Your task to perform on an android device: turn off picture-in-picture Image 0: 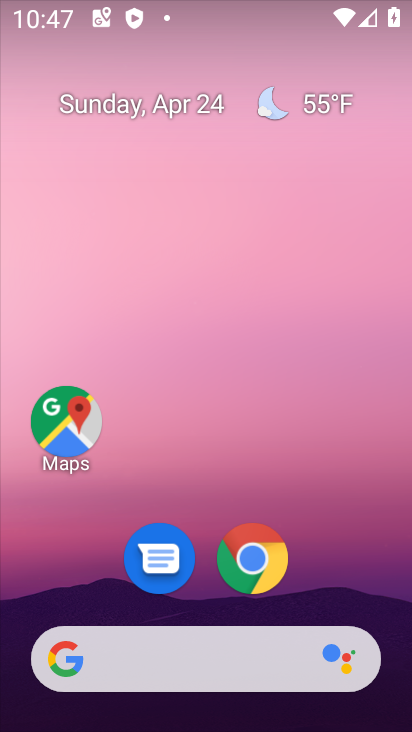
Step 0: click (260, 556)
Your task to perform on an android device: turn off picture-in-picture Image 1: 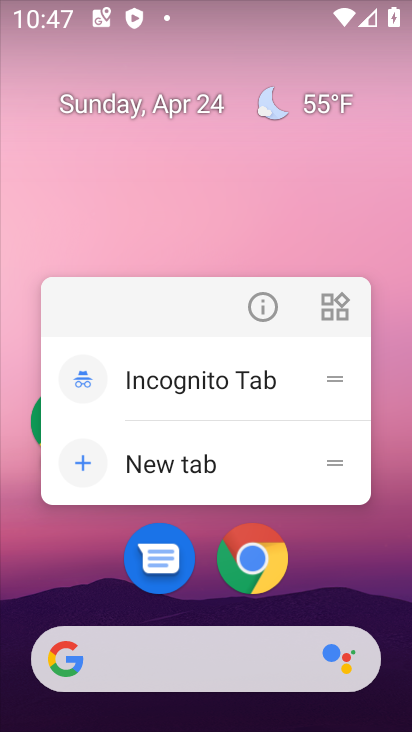
Step 1: click (260, 556)
Your task to perform on an android device: turn off picture-in-picture Image 2: 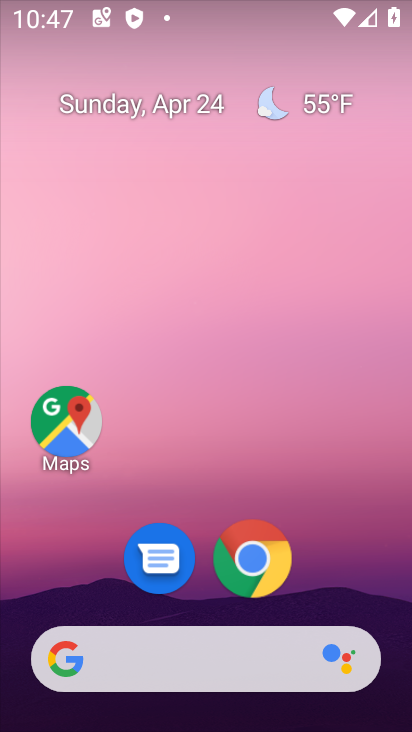
Step 2: click (261, 557)
Your task to perform on an android device: turn off picture-in-picture Image 3: 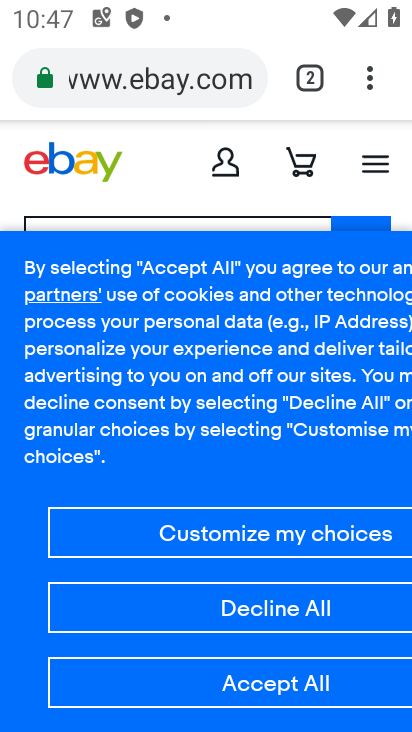
Step 3: click (263, 557)
Your task to perform on an android device: turn off picture-in-picture Image 4: 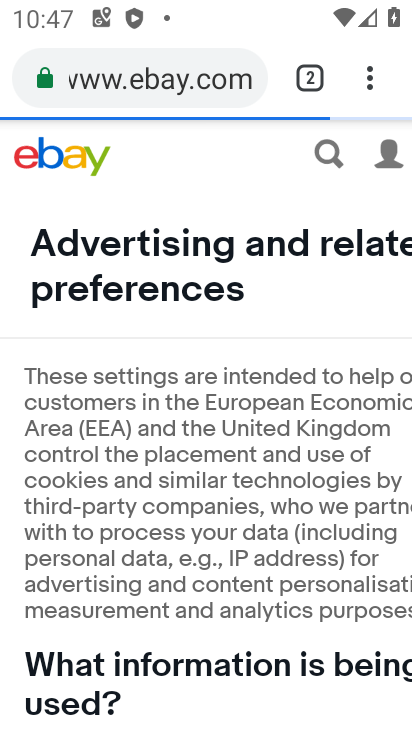
Step 4: press home button
Your task to perform on an android device: turn off picture-in-picture Image 5: 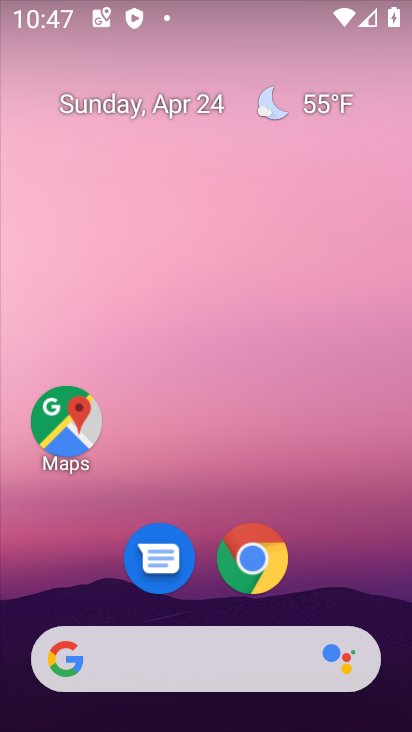
Step 5: drag from (249, 556) to (267, 303)
Your task to perform on an android device: turn off picture-in-picture Image 6: 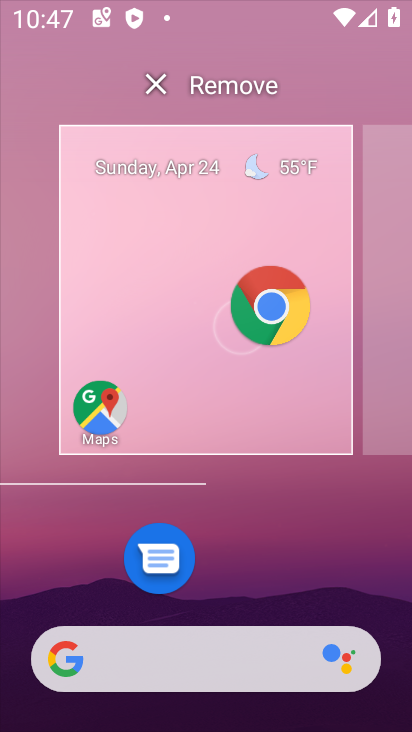
Step 6: click (265, 302)
Your task to perform on an android device: turn off picture-in-picture Image 7: 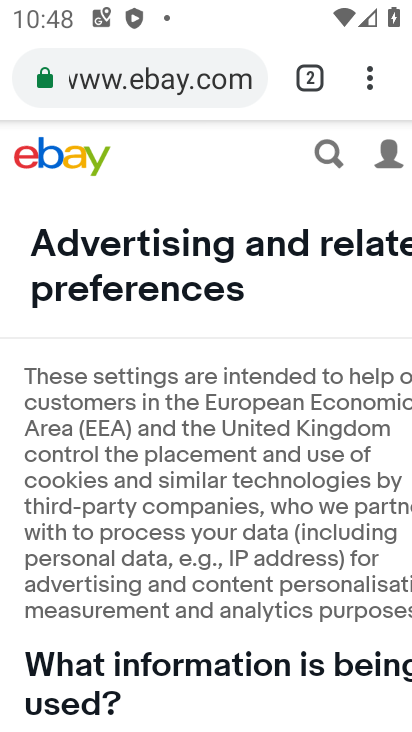
Step 7: press home button
Your task to perform on an android device: turn off picture-in-picture Image 8: 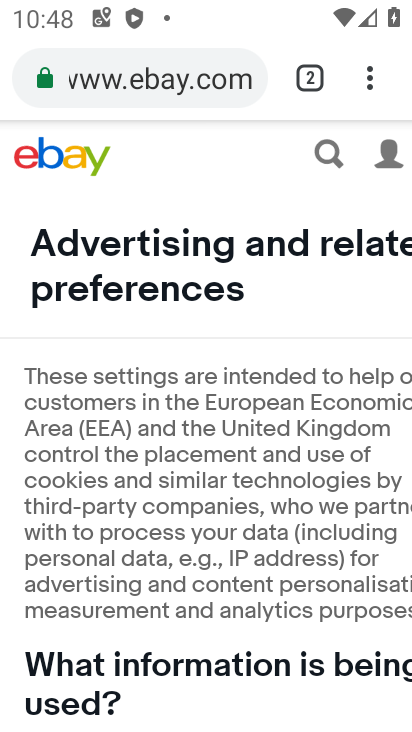
Step 8: press home button
Your task to perform on an android device: turn off picture-in-picture Image 9: 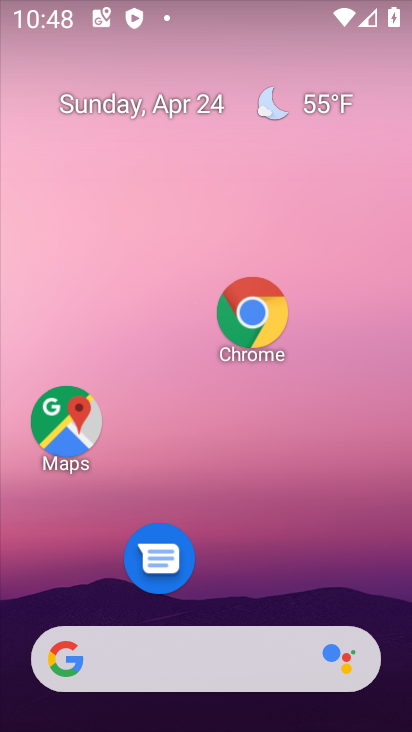
Step 9: drag from (250, 262) to (167, 15)
Your task to perform on an android device: turn off picture-in-picture Image 10: 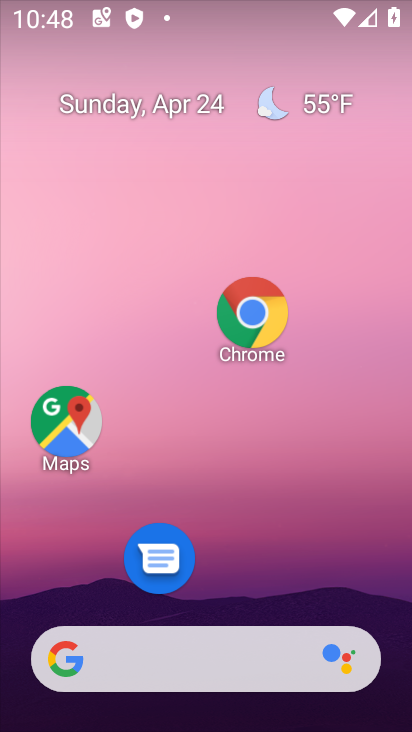
Step 10: drag from (359, 564) to (193, 62)
Your task to perform on an android device: turn off picture-in-picture Image 11: 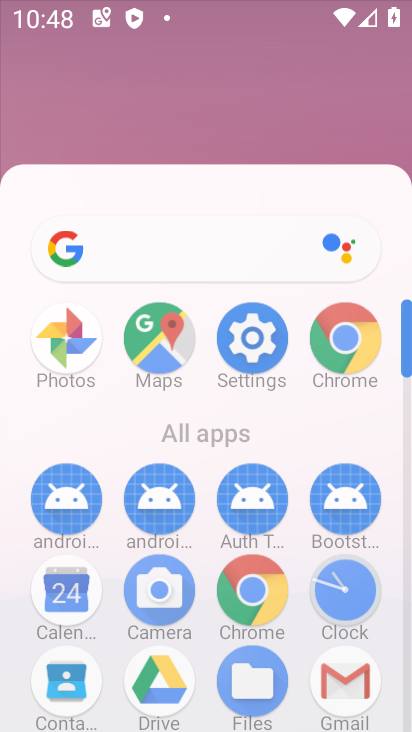
Step 11: drag from (315, 540) to (113, 74)
Your task to perform on an android device: turn off picture-in-picture Image 12: 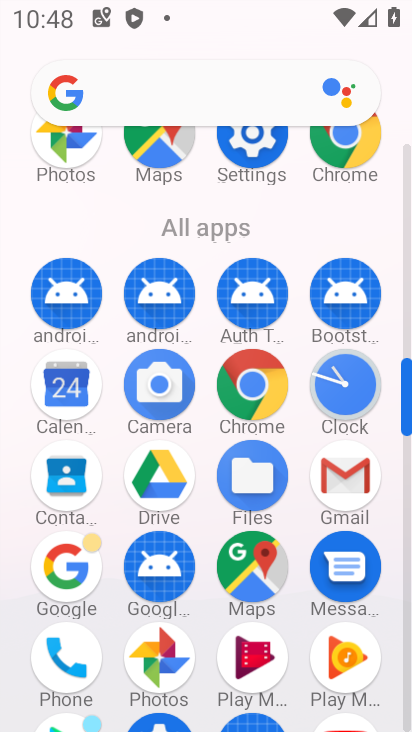
Step 12: drag from (306, 499) to (270, 203)
Your task to perform on an android device: turn off picture-in-picture Image 13: 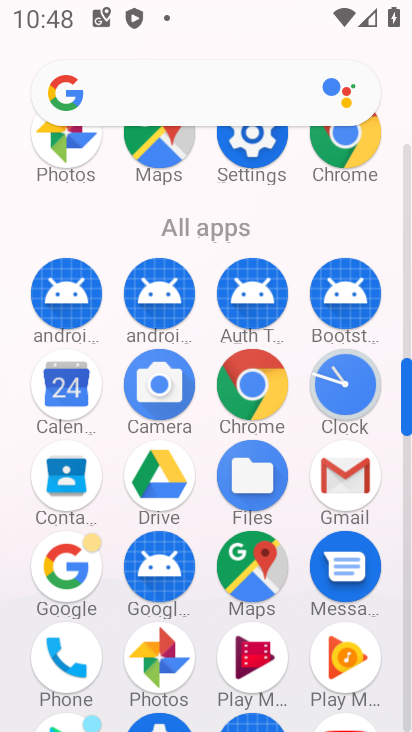
Step 13: click (349, 143)
Your task to perform on an android device: turn off picture-in-picture Image 14: 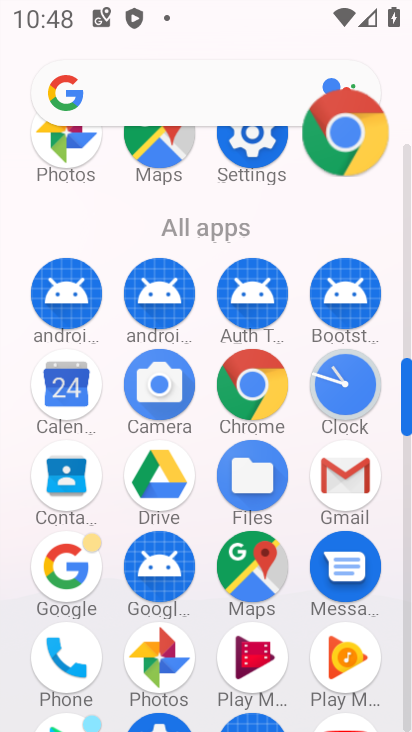
Step 14: click (349, 143)
Your task to perform on an android device: turn off picture-in-picture Image 15: 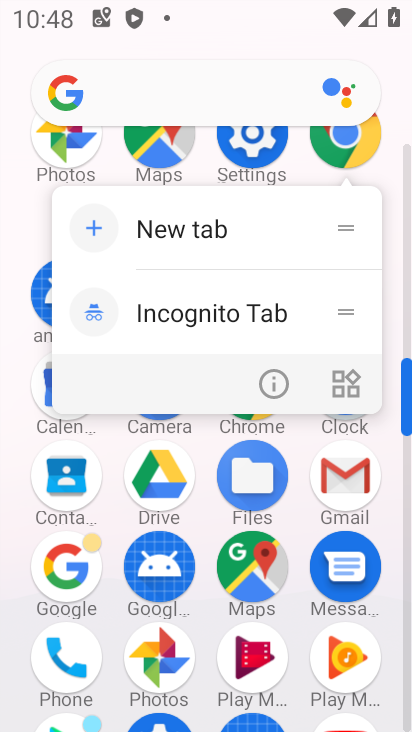
Step 15: drag from (269, 373) to (295, 404)
Your task to perform on an android device: turn off picture-in-picture Image 16: 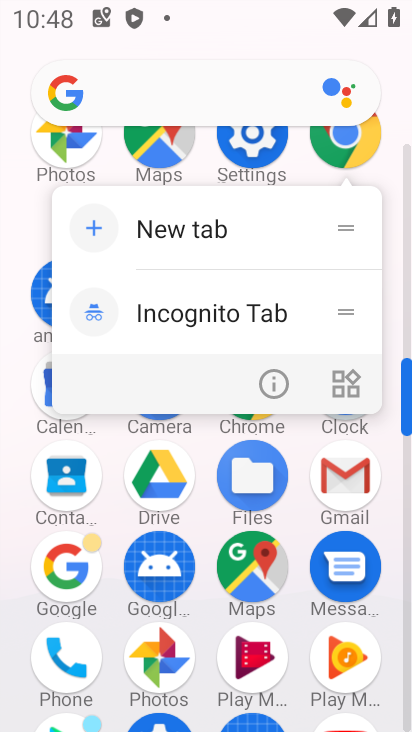
Step 16: click (274, 383)
Your task to perform on an android device: turn off picture-in-picture Image 17: 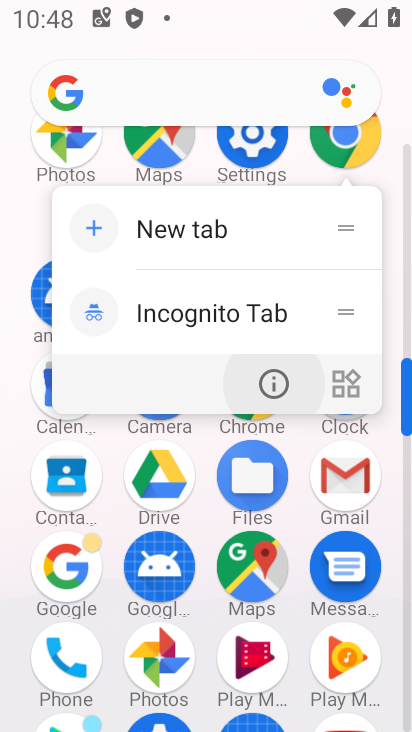
Step 17: click (275, 383)
Your task to perform on an android device: turn off picture-in-picture Image 18: 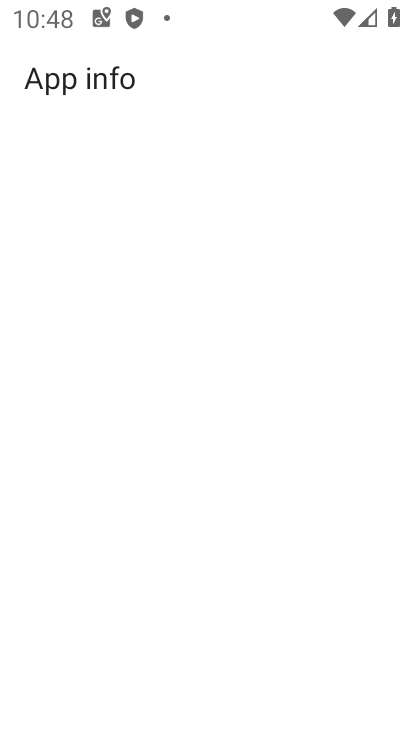
Step 18: click (278, 384)
Your task to perform on an android device: turn off picture-in-picture Image 19: 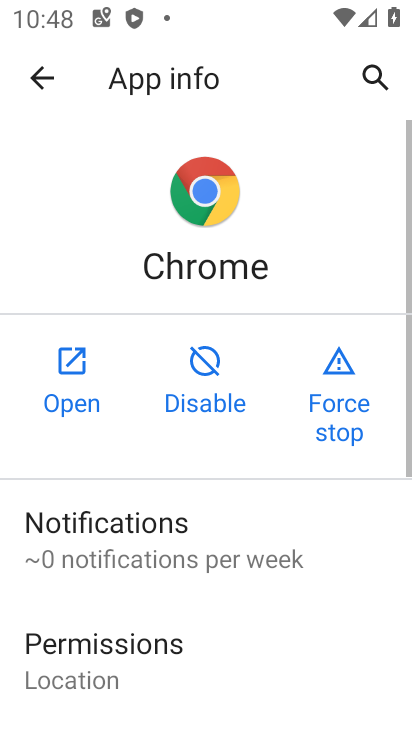
Step 19: drag from (223, 549) to (268, 147)
Your task to perform on an android device: turn off picture-in-picture Image 20: 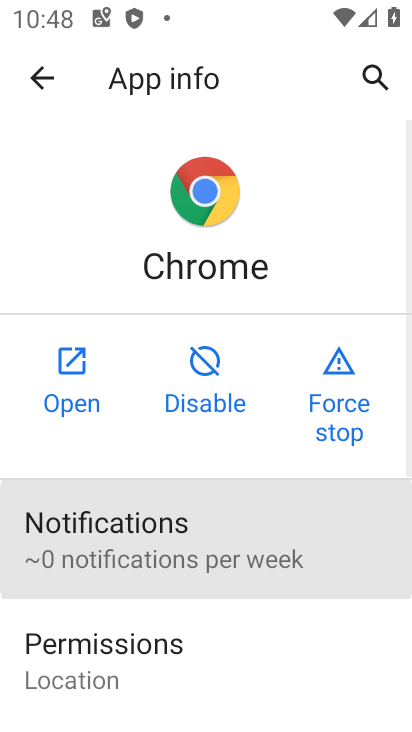
Step 20: drag from (199, 379) to (188, 77)
Your task to perform on an android device: turn off picture-in-picture Image 21: 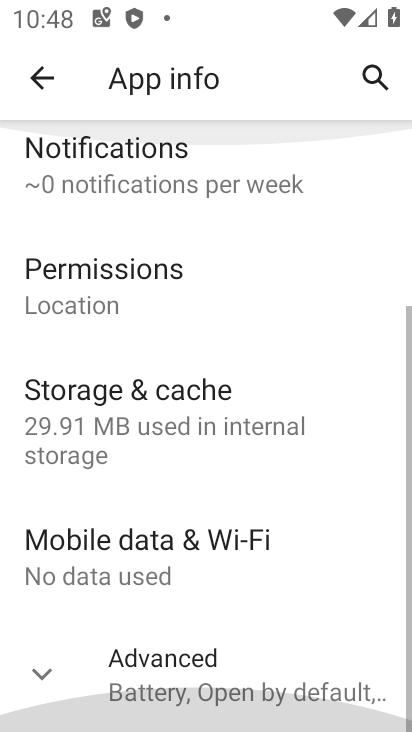
Step 21: drag from (135, 578) to (170, 207)
Your task to perform on an android device: turn off picture-in-picture Image 22: 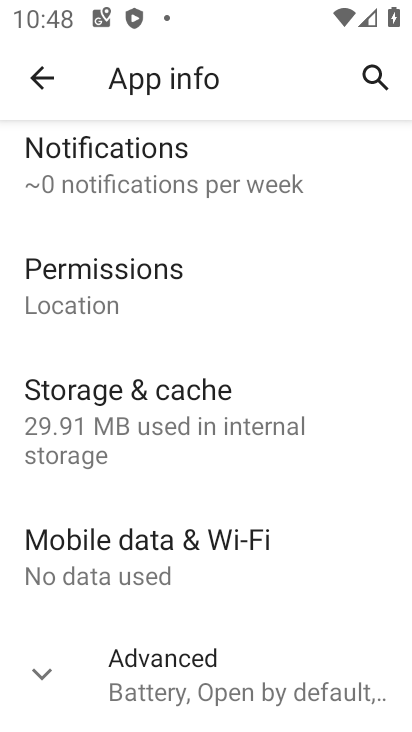
Step 22: click (184, 668)
Your task to perform on an android device: turn off picture-in-picture Image 23: 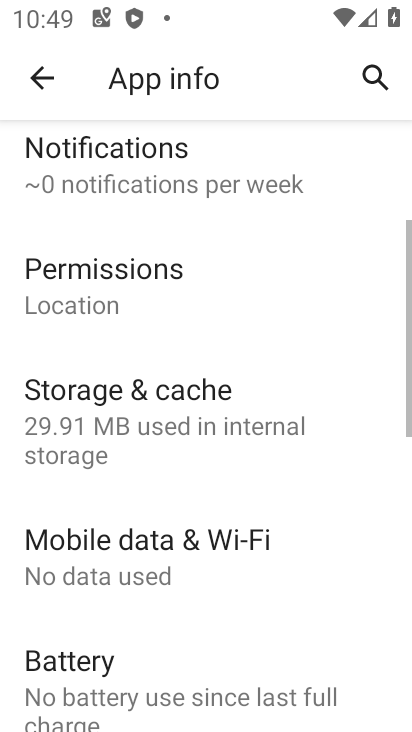
Step 23: drag from (184, 668) to (184, 181)
Your task to perform on an android device: turn off picture-in-picture Image 24: 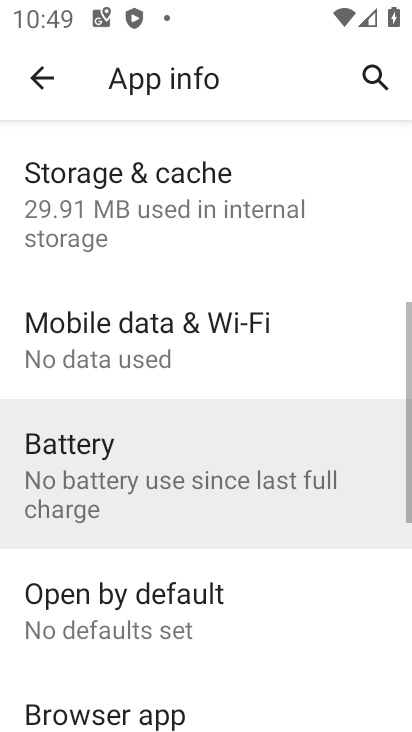
Step 24: drag from (174, 499) to (116, 70)
Your task to perform on an android device: turn off picture-in-picture Image 25: 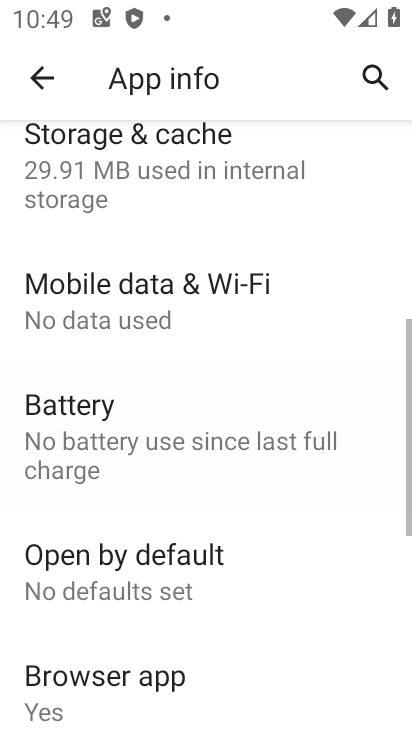
Step 25: drag from (173, 383) to (160, 75)
Your task to perform on an android device: turn off picture-in-picture Image 26: 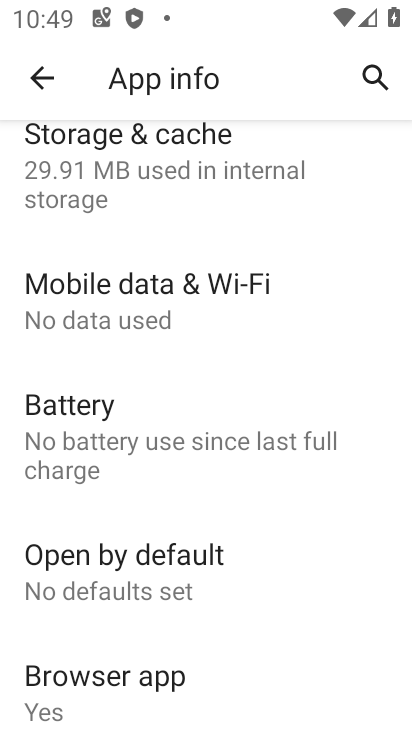
Step 26: drag from (165, 553) to (143, 169)
Your task to perform on an android device: turn off picture-in-picture Image 27: 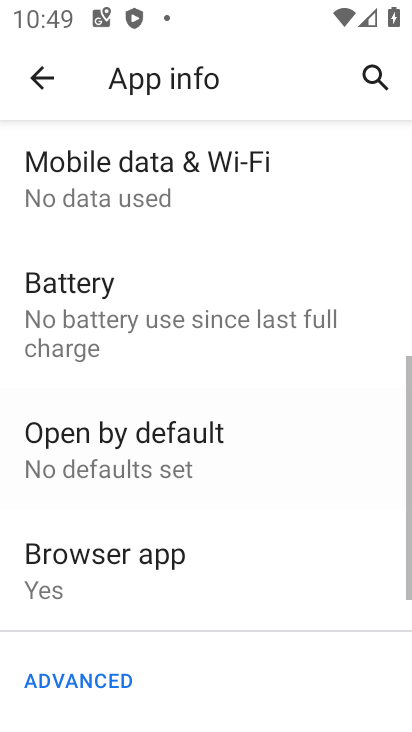
Step 27: drag from (202, 554) to (122, 79)
Your task to perform on an android device: turn off picture-in-picture Image 28: 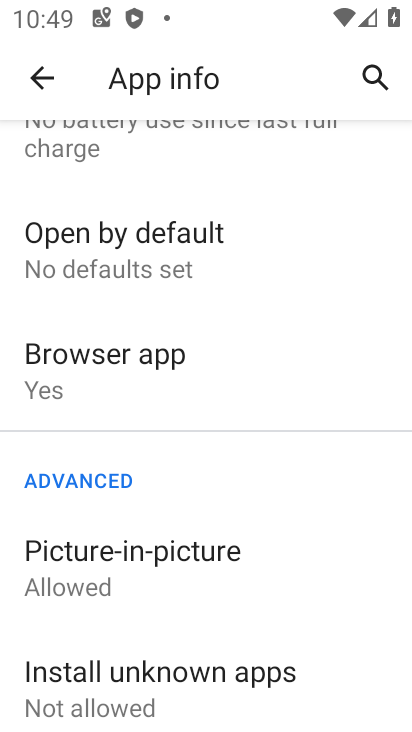
Step 28: click (94, 583)
Your task to perform on an android device: turn off picture-in-picture Image 29: 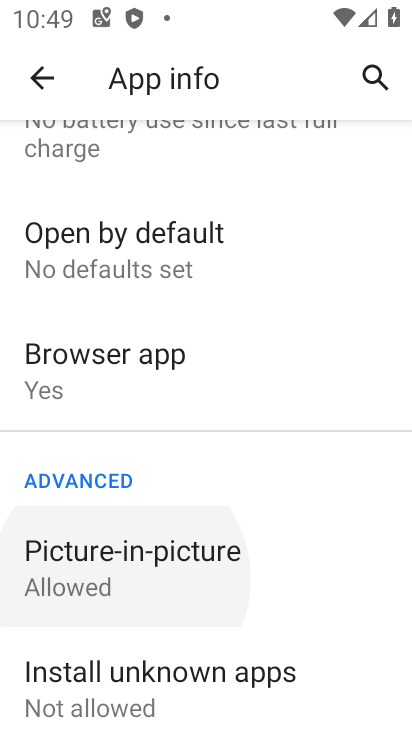
Step 29: click (95, 583)
Your task to perform on an android device: turn off picture-in-picture Image 30: 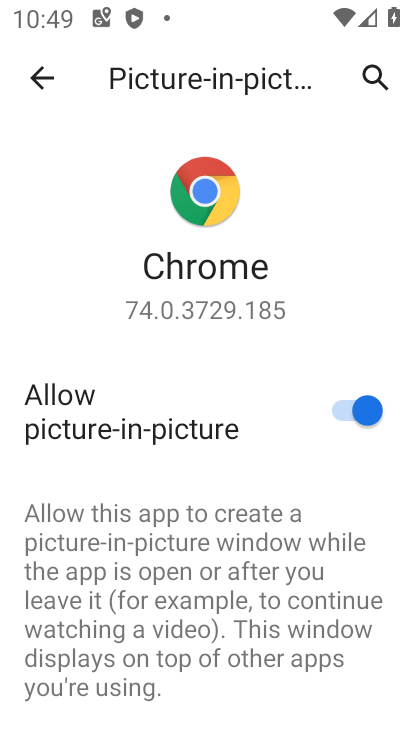
Step 30: click (97, 585)
Your task to perform on an android device: turn off picture-in-picture Image 31: 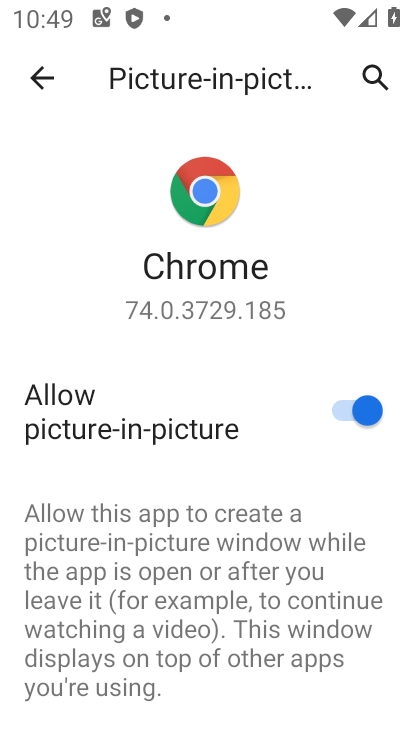
Step 31: click (353, 403)
Your task to perform on an android device: turn off picture-in-picture Image 32: 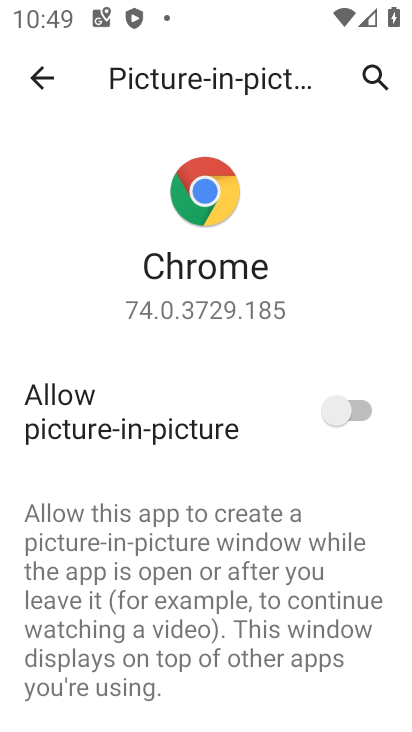
Step 32: task complete